Your task to perform on an android device: set the stopwatch Image 0: 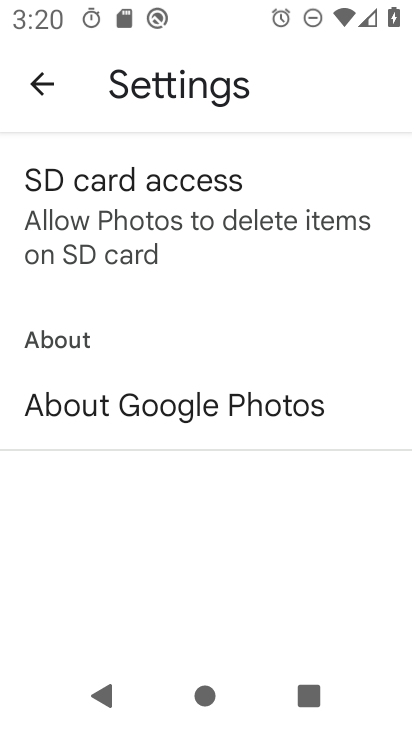
Step 0: press home button
Your task to perform on an android device: set the stopwatch Image 1: 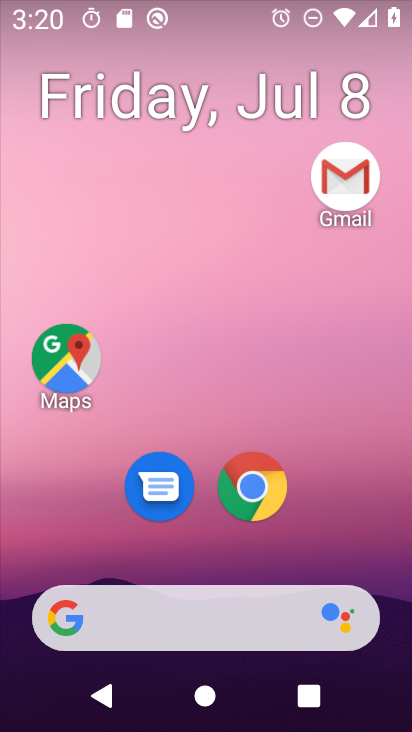
Step 1: drag from (371, 525) to (383, 164)
Your task to perform on an android device: set the stopwatch Image 2: 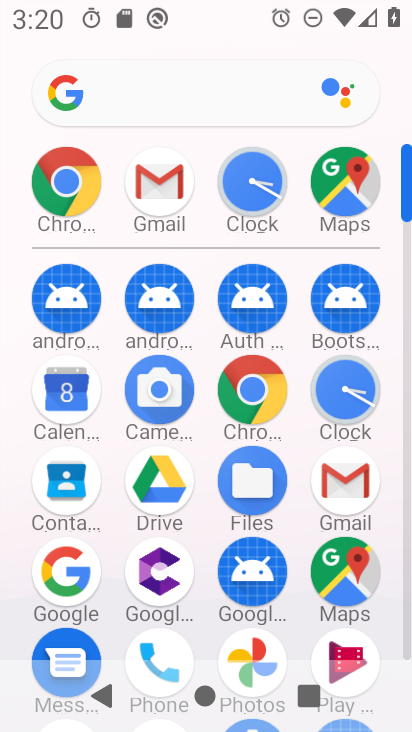
Step 2: click (359, 385)
Your task to perform on an android device: set the stopwatch Image 3: 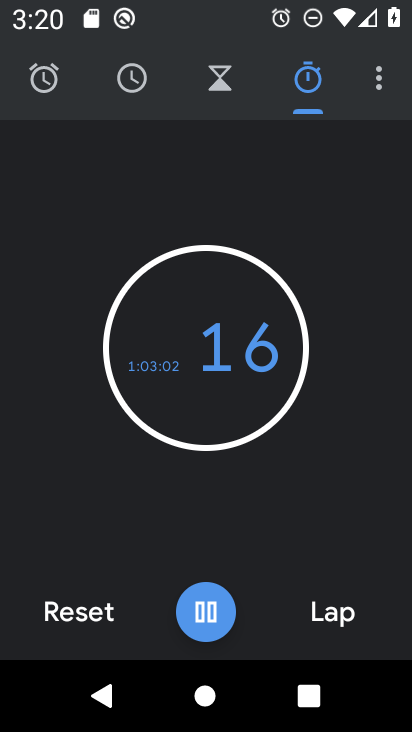
Step 3: task complete